Your task to perform on an android device: search for starred emails in the gmail app Image 0: 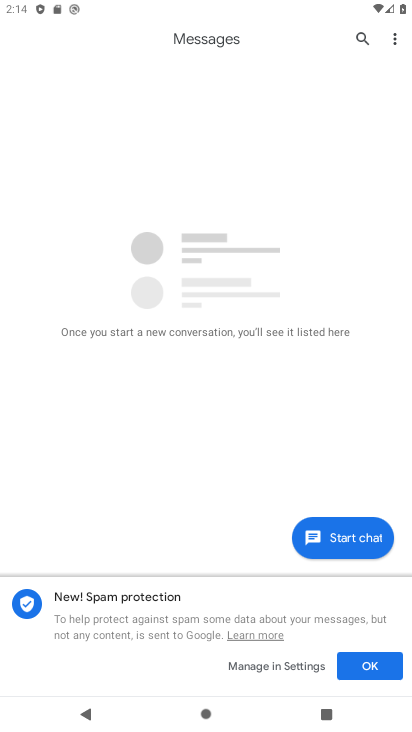
Step 0: press home button
Your task to perform on an android device: search for starred emails in the gmail app Image 1: 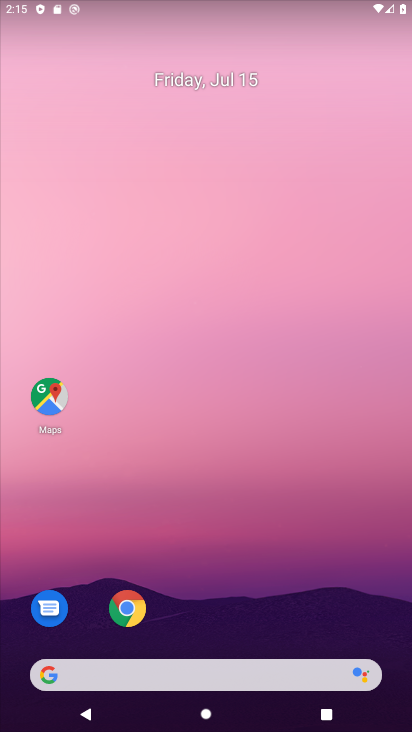
Step 1: drag from (249, 618) to (193, 26)
Your task to perform on an android device: search for starred emails in the gmail app Image 2: 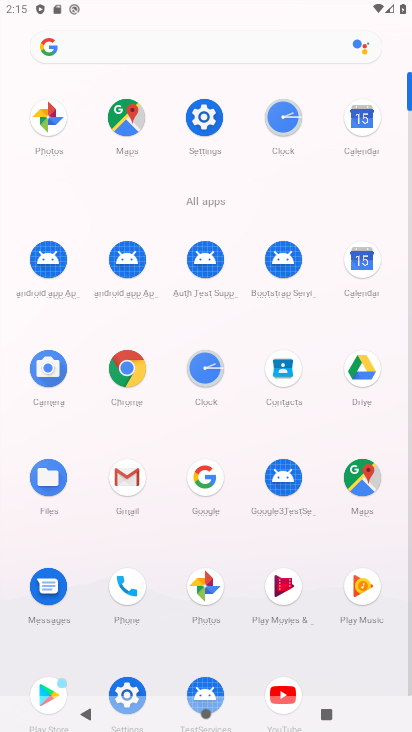
Step 2: click (132, 487)
Your task to perform on an android device: search for starred emails in the gmail app Image 3: 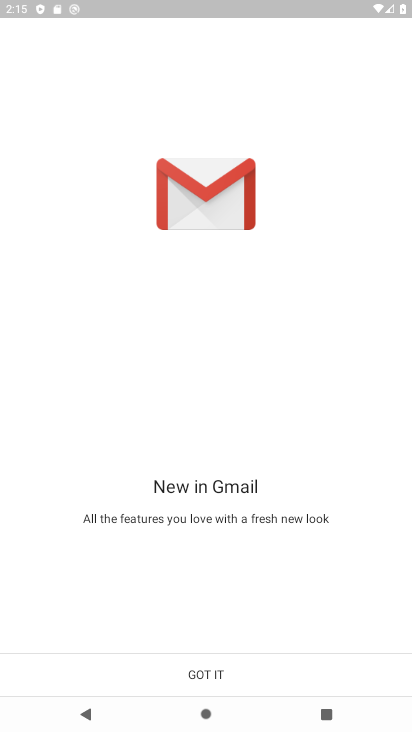
Step 3: click (219, 669)
Your task to perform on an android device: search for starred emails in the gmail app Image 4: 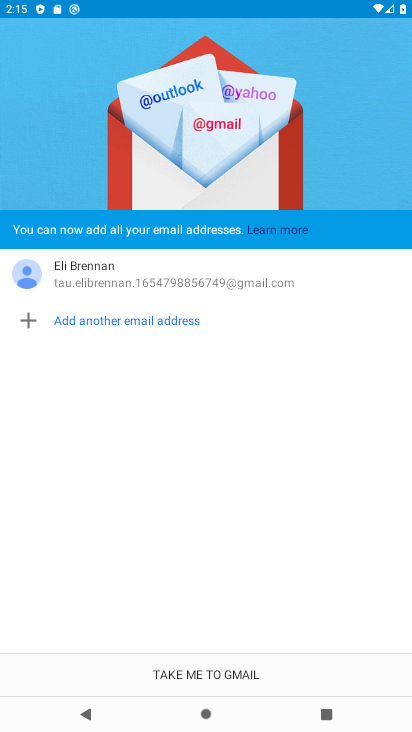
Step 4: click (219, 669)
Your task to perform on an android device: search for starred emails in the gmail app Image 5: 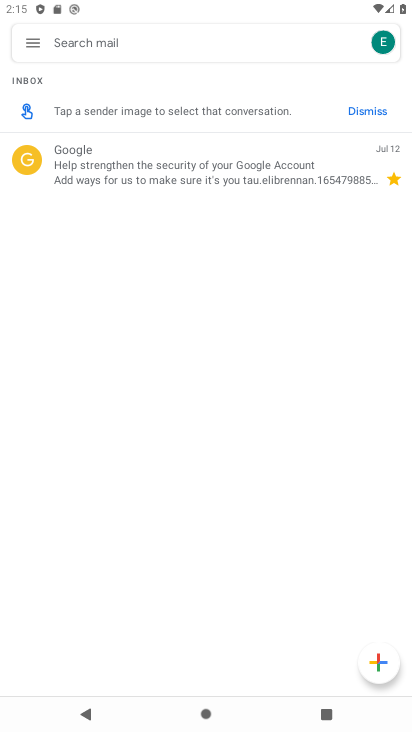
Step 5: click (35, 47)
Your task to perform on an android device: search for starred emails in the gmail app Image 6: 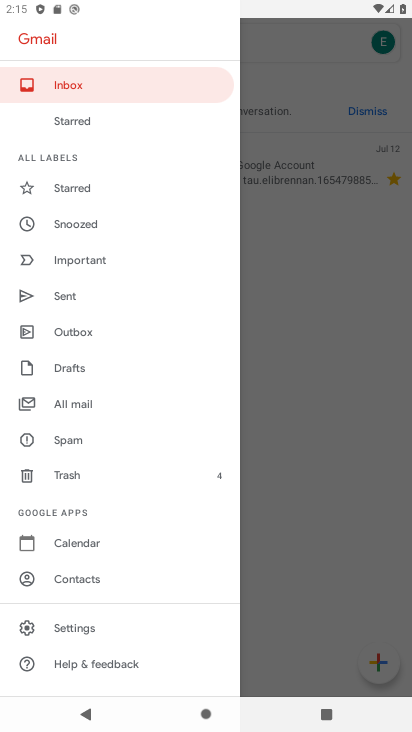
Step 6: click (76, 191)
Your task to perform on an android device: search for starred emails in the gmail app Image 7: 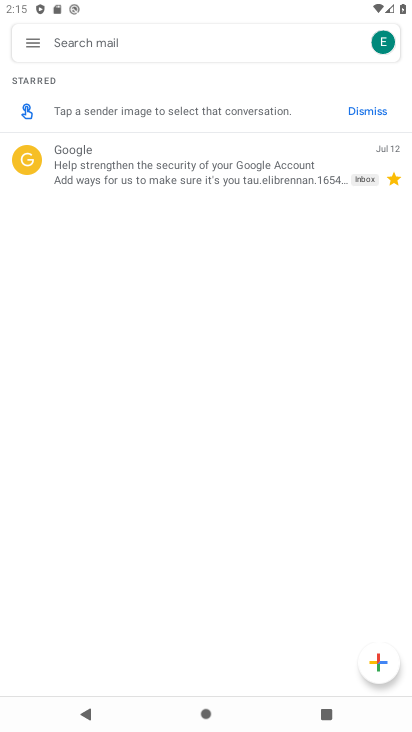
Step 7: task complete